Your task to perform on an android device: change the clock display to analog Image 0: 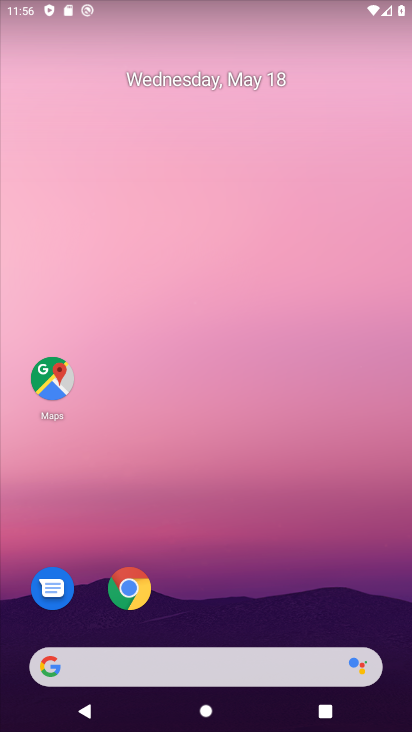
Step 0: drag from (278, 648) to (351, 100)
Your task to perform on an android device: change the clock display to analog Image 1: 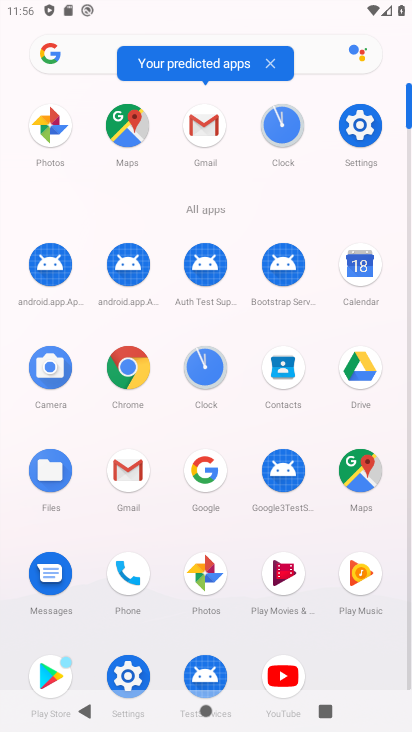
Step 1: click (285, 124)
Your task to perform on an android device: change the clock display to analog Image 2: 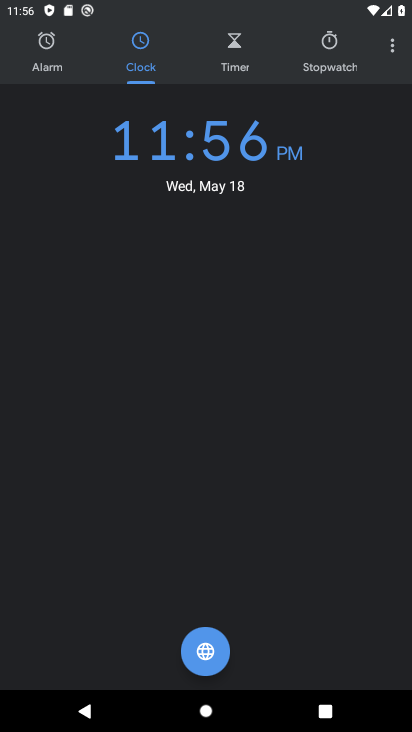
Step 2: click (394, 41)
Your task to perform on an android device: change the clock display to analog Image 3: 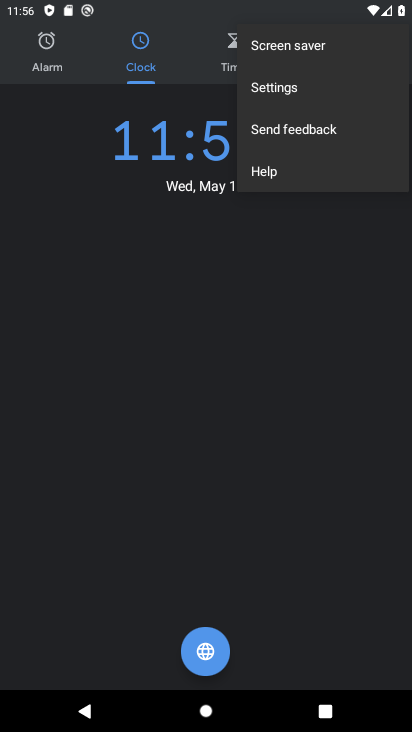
Step 3: click (287, 89)
Your task to perform on an android device: change the clock display to analog Image 4: 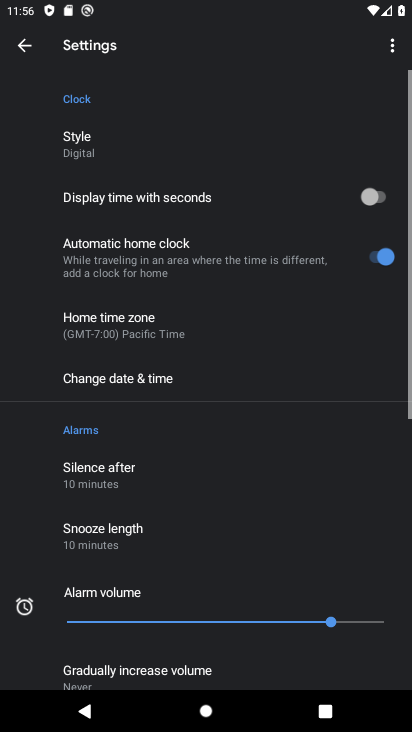
Step 4: click (47, 146)
Your task to perform on an android device: change the clock display to analog Image 5: 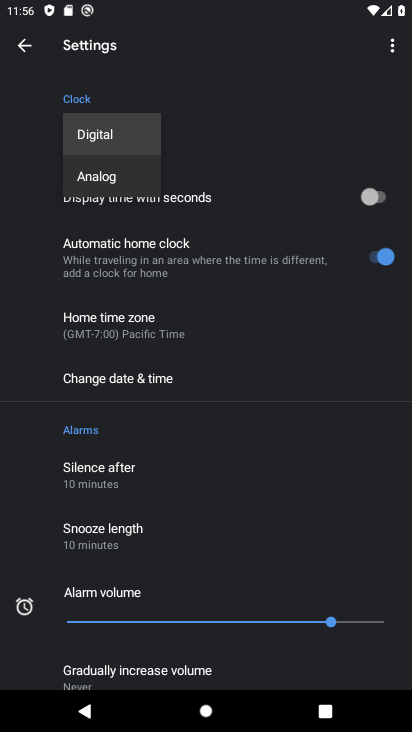
Step 5: click (118, 172)
Your task to perform on an android device: change the clock display to analog Image 6: 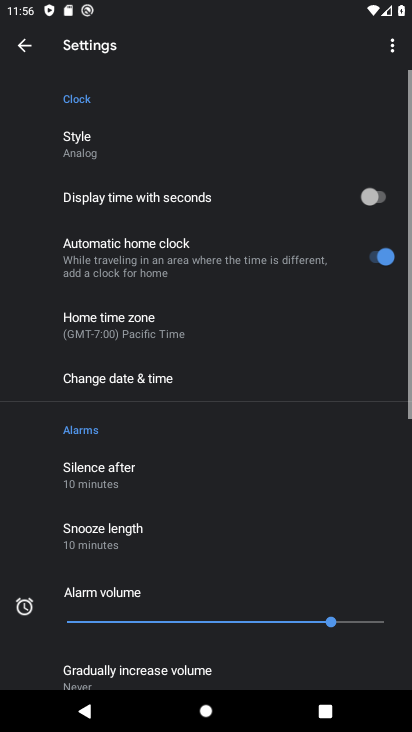
Step 6: task complete